Your task to perform on an android device: Go to Android settings Image 0: 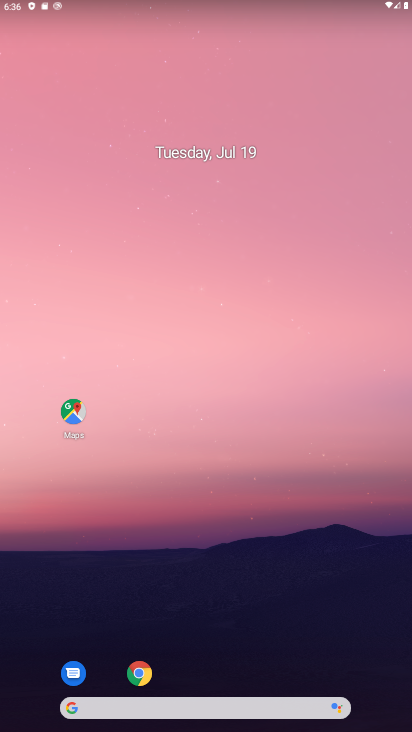
Step 0: drag from (386, 672) to (249, 44)
Your task to perform on an android device: Go to Android settings Image 1: 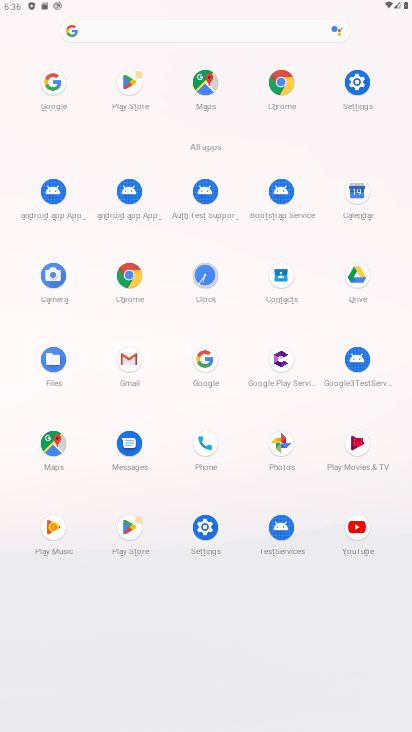
Step 1: click (194, 537)
Your task to perform on an android device: Go to Android settings Image 2: 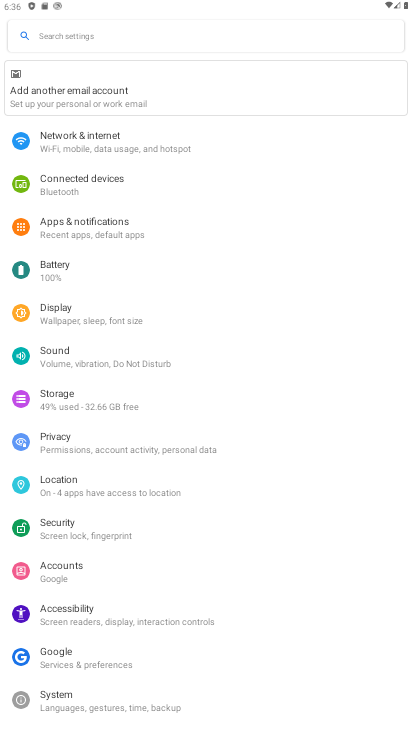
Step 2: task complete